Your task to perform on an android device: Open Google Maps Image 0: 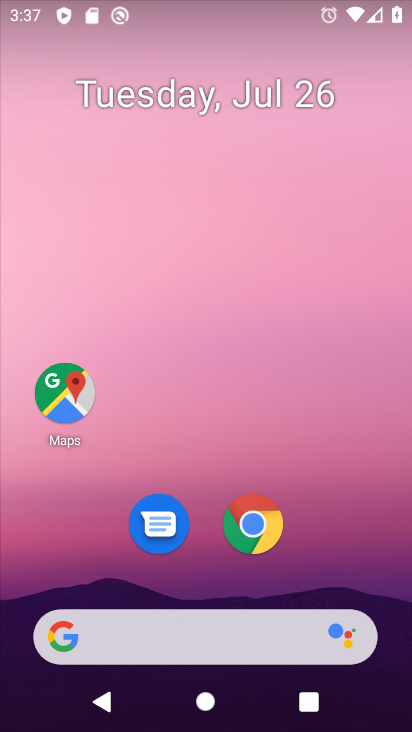
Step 0: click (55, 381)
Your task to perform on an android device: Open Google Maps Image 1: 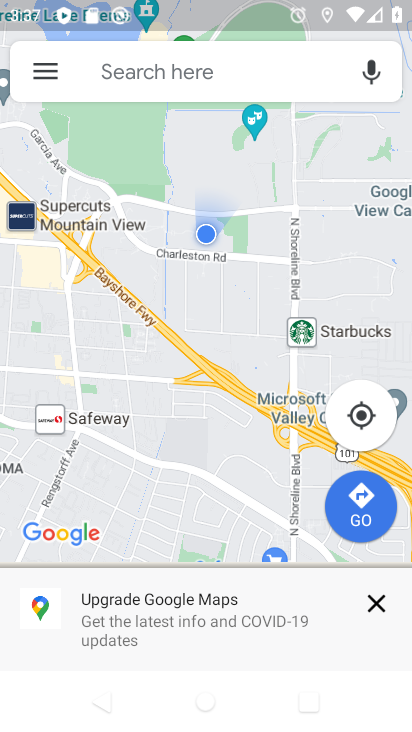
Step 1: task complete